Your task to perform on an android device: empty trash in the gmail app Image 0: 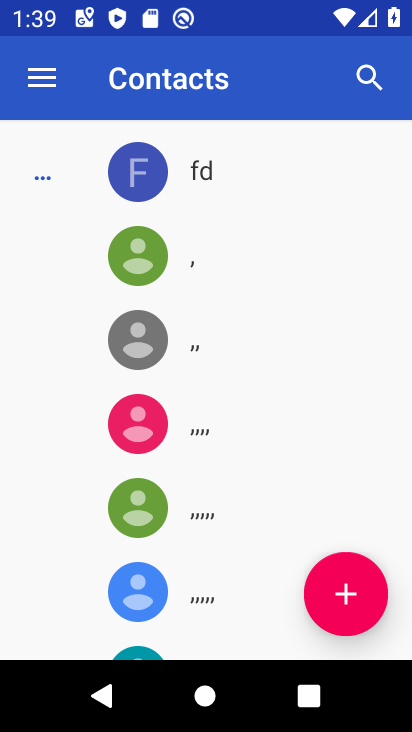
Step 0: press home button
Your task to perform on an android device: empty trash in the gmail app Image 1: 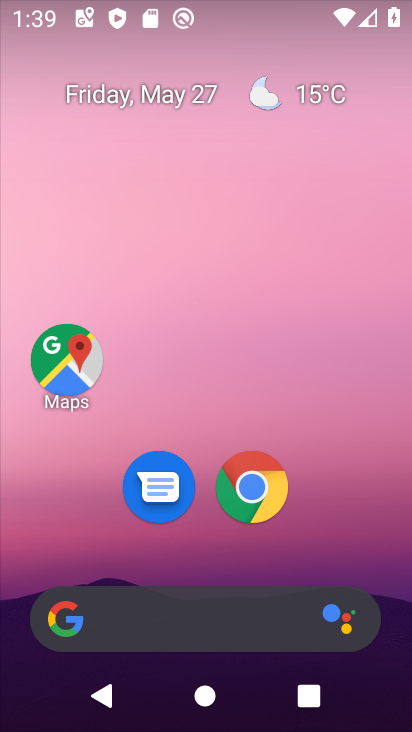
Step 1: drag from (226, 539) to (234, 216)
Your task to perform on an android device: empty trash in the gmail app Image 2: 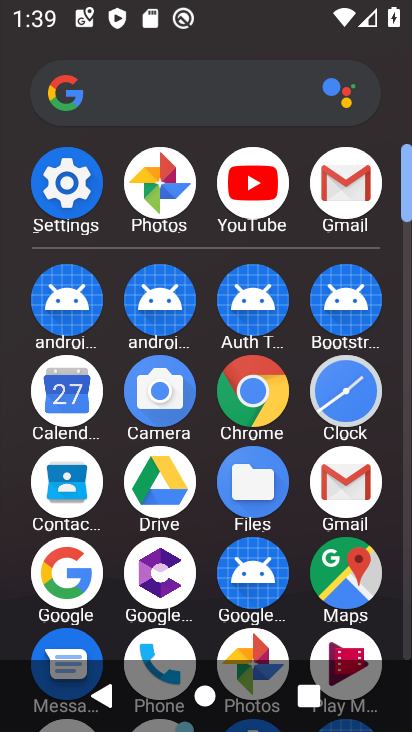
Step 2: click (323, 192)
Your task to perform on an android device: empty trash in the gmail app Image 3: 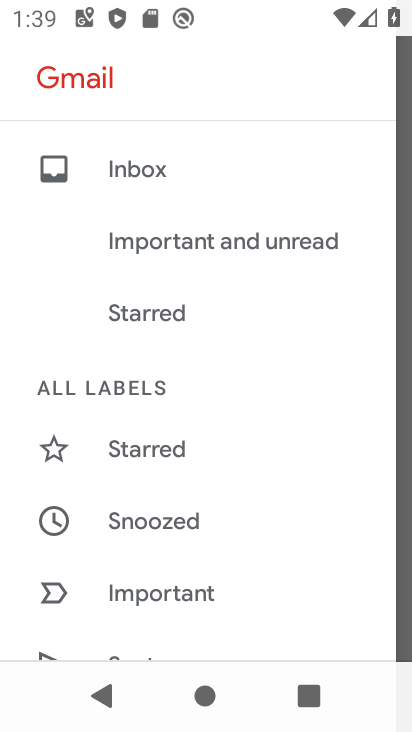
Step 3: drag from (109, 629) to (186, 208)
Your task to perform on an android device: empty trash in the gmail app Image 4: 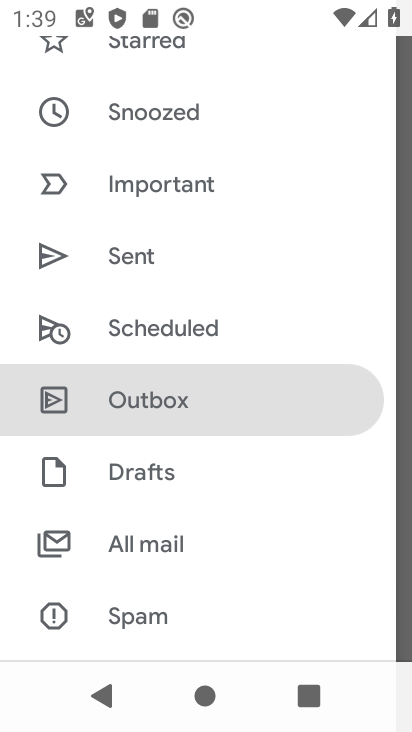
Step 4: drag from (132, 612) to (213, 251)
Your task to perform on an android device: empty trash in the gmail app Image 5: 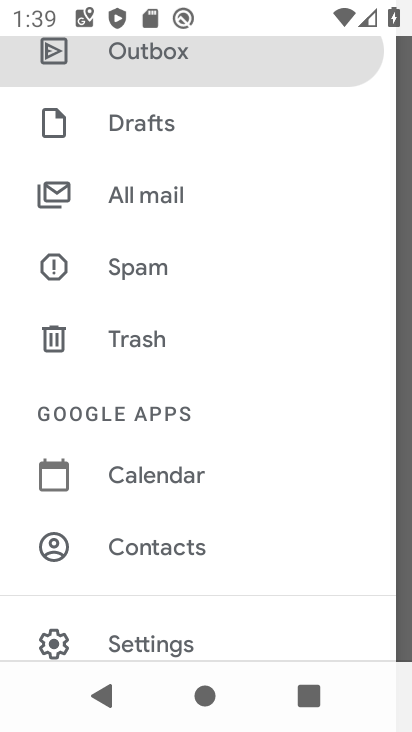
Step 5: click (153, 340)
Your task to perform on an android device: empty trash in the gmail app Image 6: 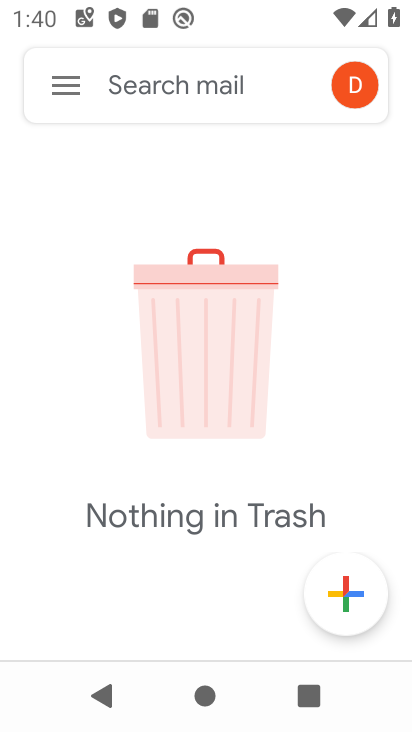
Step 6: task complete